Your task to perform on an android device: Open privacy settings Image 0: 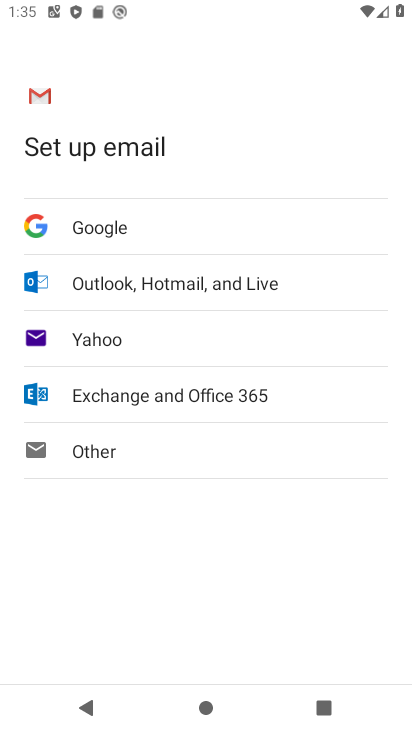
Step 0: press home button
Your task to perform on an android device: Open privacy settings Image 1: 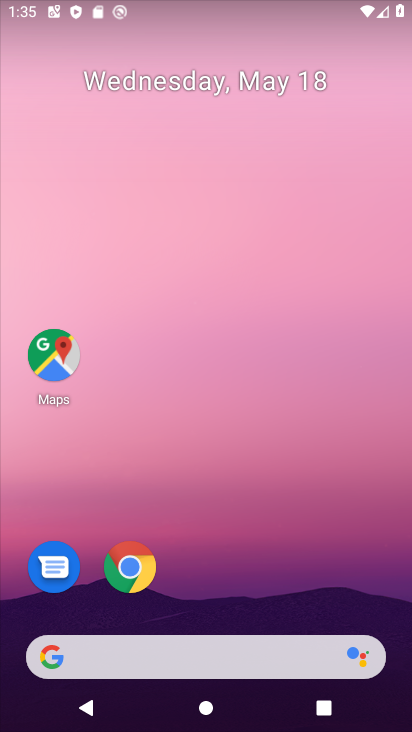
Step 1: drag from (241, 522) to (272, 104)
Your task to perform on an android device: Open privacy settings Image 2: 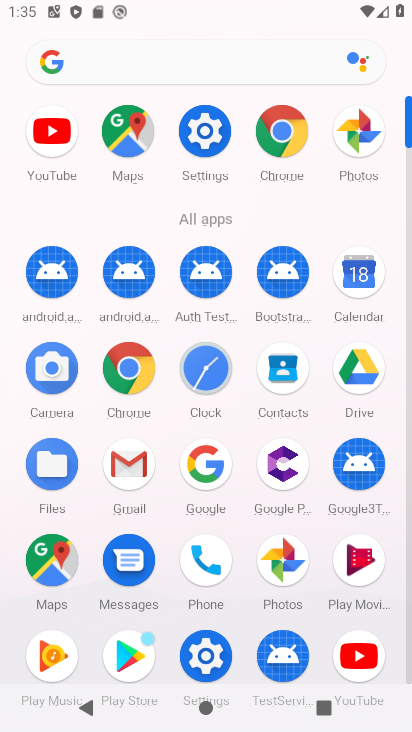
Step 2: click (204, 125)
Your task to perform on an android device: Open privacy settings Image 3: 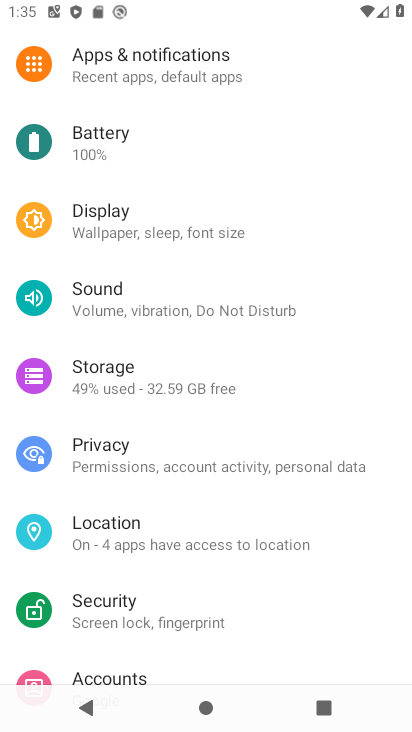
Step 3: drag from (213, 639) to (312, 43)
Your task to perform on an android device: Open privacy settings Image 4: 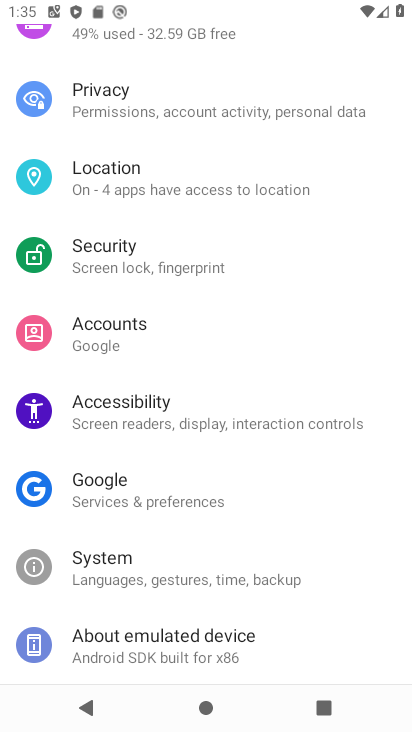
Step 4: click (154, 101)
Your task to perform on an android device: Open privacy settings Image 5: 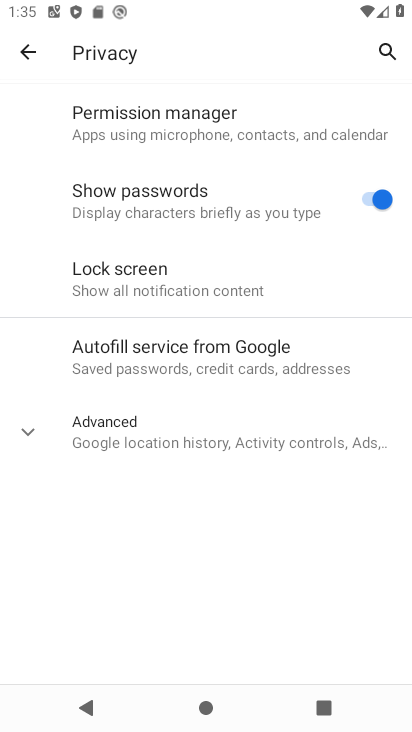
Step 5: task complete